Your task to perform on an android device: Open Google Chrome and open the bookmarks view Image 0: 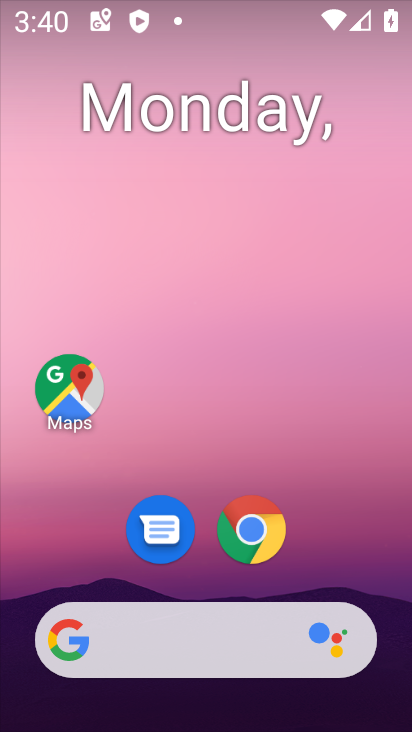
Step 0: click (250, 530)
Your task to perform on an android device: Open Google Chrome and open the bookmarks view Image 1: 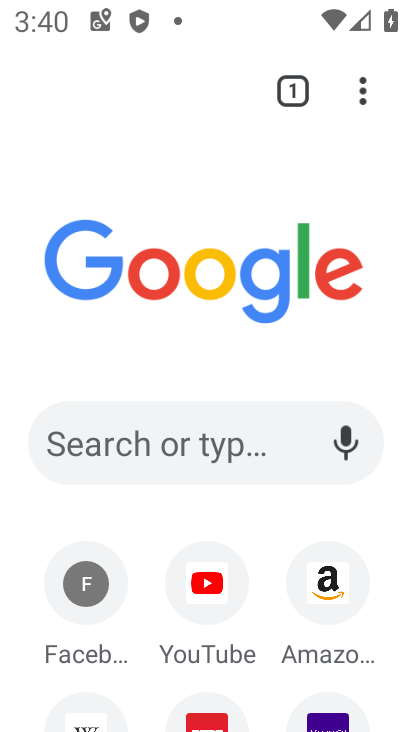
Step 1: task complete